Your task to perform on an android device: see sites visited before in the chrome app Image 0: 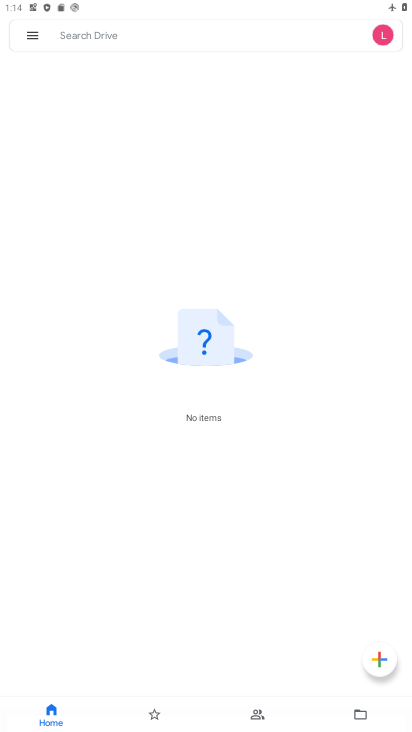
Step 0: press home button
Your task to perform on an android device: see sites visited before in the chrome app Image 1: 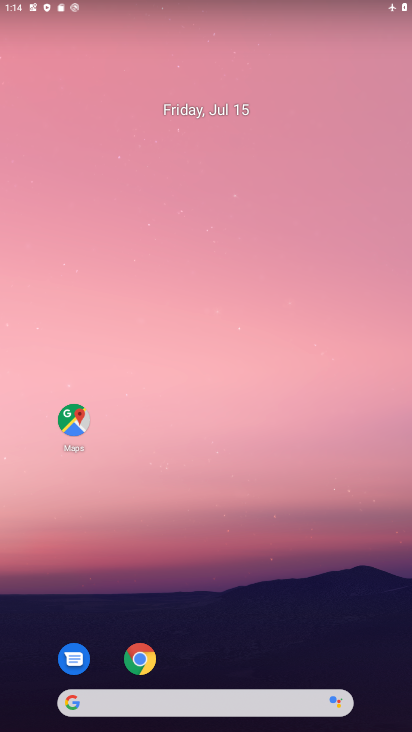
Step 1: click (140, 659)
Your task to perform on an android device: see sites visited before in the chrome app Image 2: 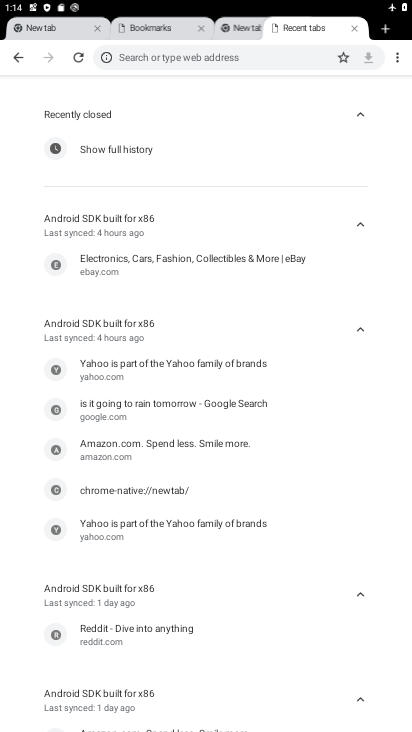
Step 2: click (391, 57)
Your task to perform on an android device: see sites visited before in the chrome app Image 3: 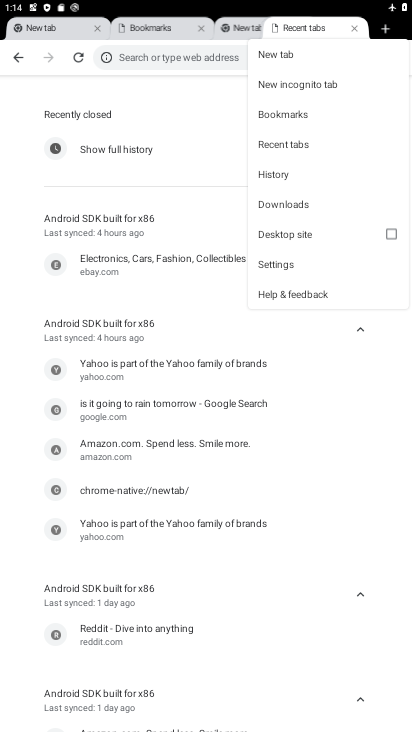
Step 3: click (307, 143)
Your task to perform on an android device: see sites visited before in the chrome app Image 4: 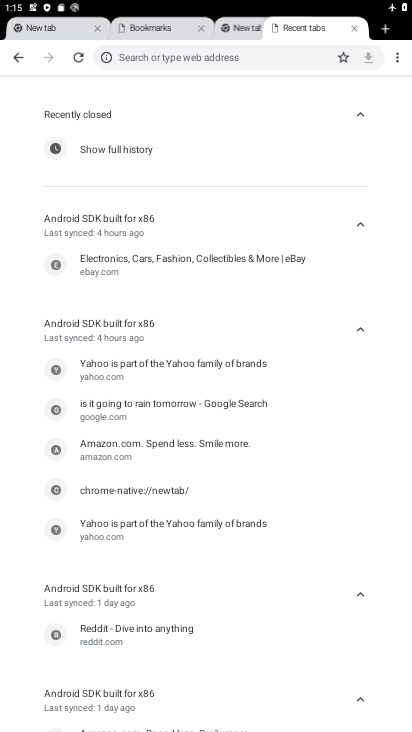
Step 4: task complete